Your task to perform on an android device: Go to battery settings Image 0: 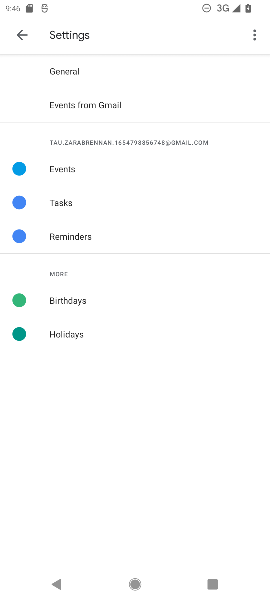
Step 0: press home button
Your task to perform on an android device: Go to battery settings Image 1: 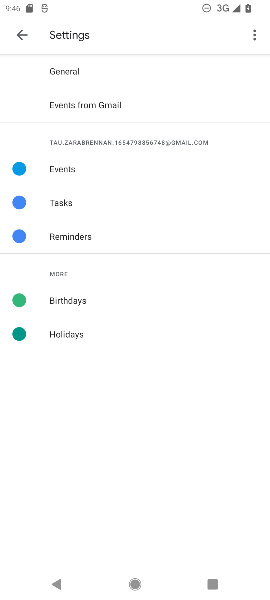
Step 1: press home button
Your task to perform on an android device: Go to battery settings Image 2: 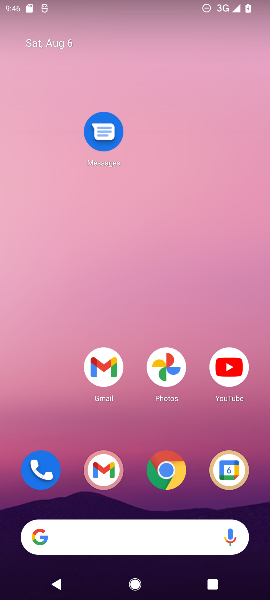
Step 2: drag from (170, 550) to (157, 69)
Your task to perform on an android device: Go to battery settings Image 3: 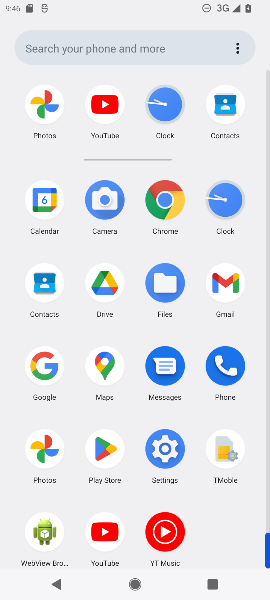
Step 3: click (171, 210)
Your task to perform on an android device: Go to battery settings Image 4: 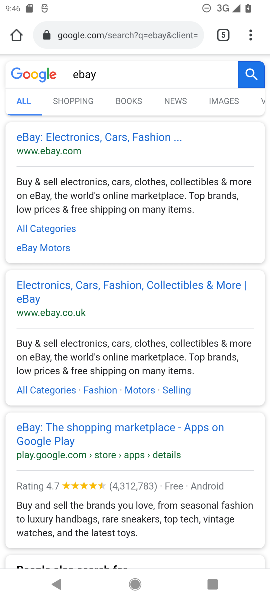
Step 4: press home button
Your task to perform on an android device: Go to battery settings Image 5: 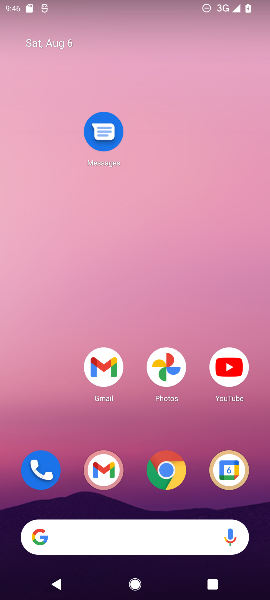
Step 5: drag from (119, 537) to (142, 210)
Your task to perform on an android device: Go to battery settings Image 6: 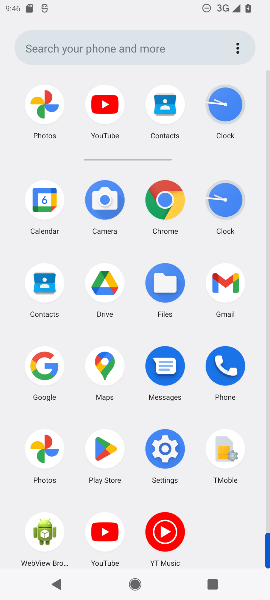
Step 6: click (181, 451)
Your task to perform on an android device: Go to battery settings Image 7: 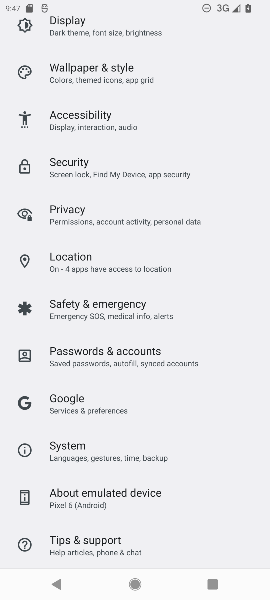
Step 7: drag from (131, 443) to (134, 282)
Your task to perform on an android device: Go to battery settings Image 8: 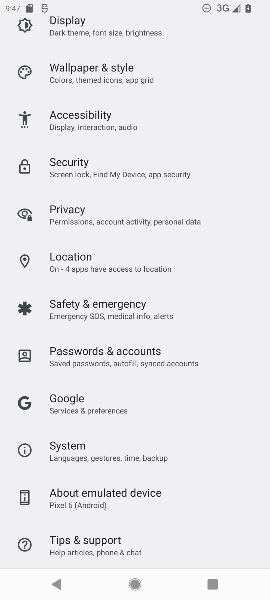
Step 8: drag from (134, 241) to (87, 441)
Your task to perform on an android device: Go to battery settings Image 9: 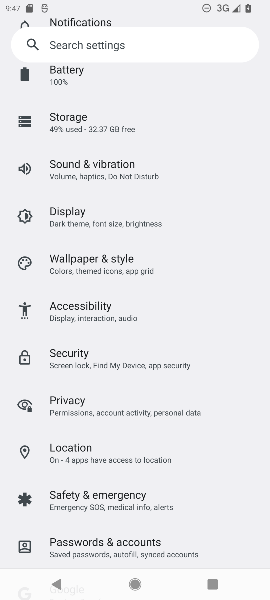
Step 9: click (114, 76)
Your task to perform on an android device: Go to battery settings Image 10: 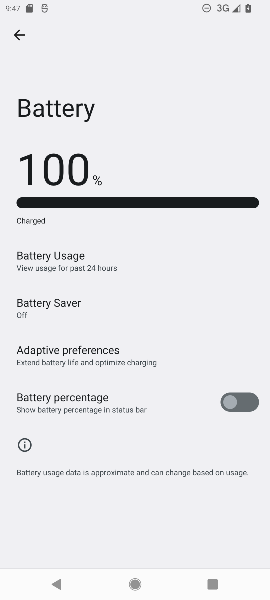
Step 10: task complete